Your task to perform on an android device: turn on javascript in the chrome app Image 0: 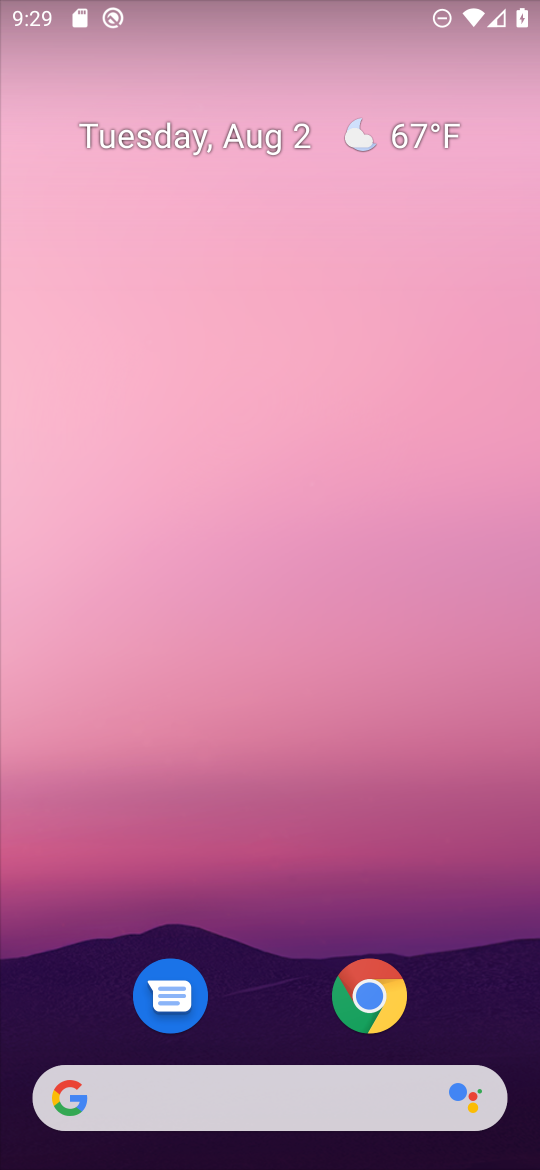
Step 0: drag from (237, 1020) to (234, 0)
Your task to perform on an android device: turn on javascript in the chrome app Image 1: 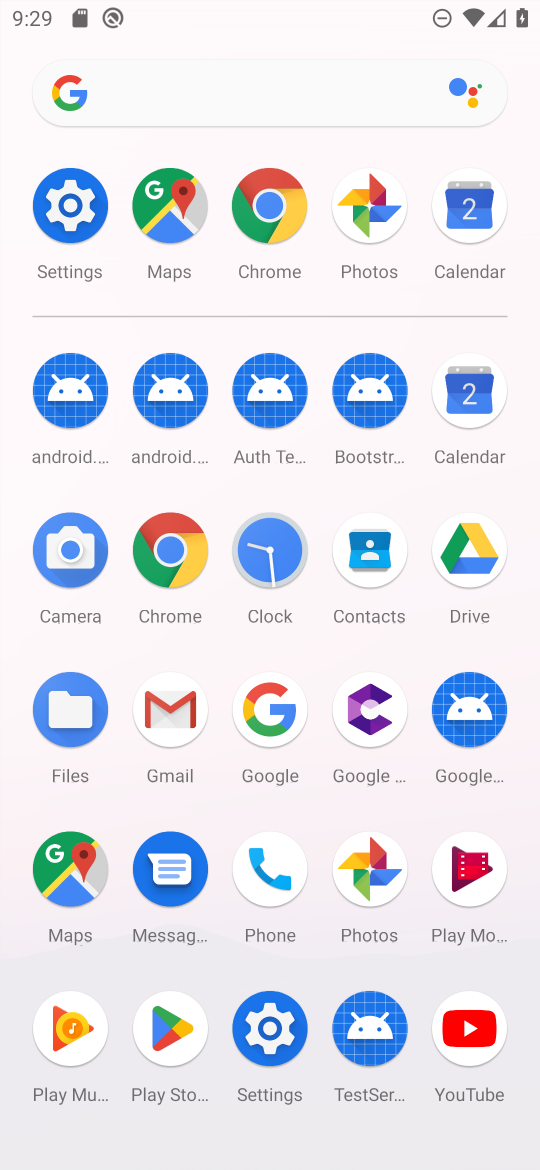
Step 1: click (152, 544)
Your task to perform on an android device: turn on javascript in the chrome app Image 2: 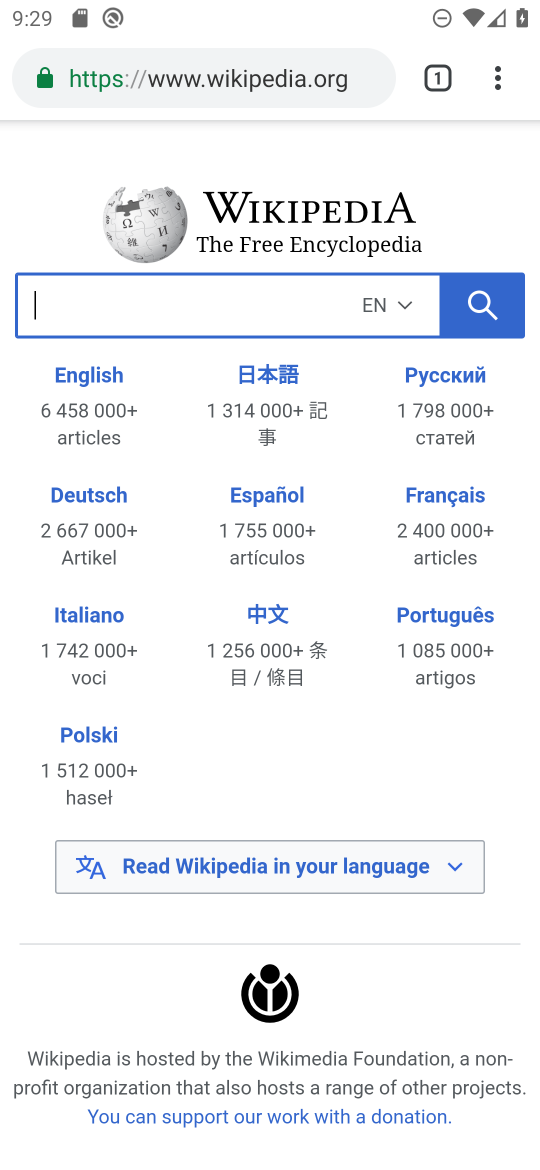
Step 2: drag from (492, 66) to (208, 1032)
Your task to perform on an android device: turn on javascript in the chrome app Image 3: 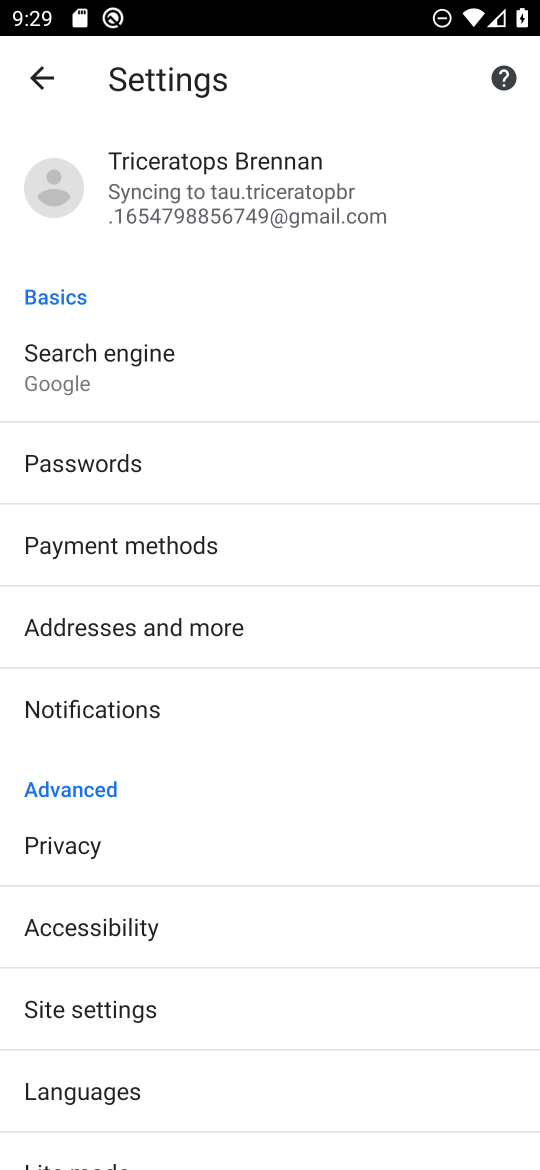
Step 3: click (114, 1019)
Your task to perform on an android device: turn on javascript in the chrome app Image 4: 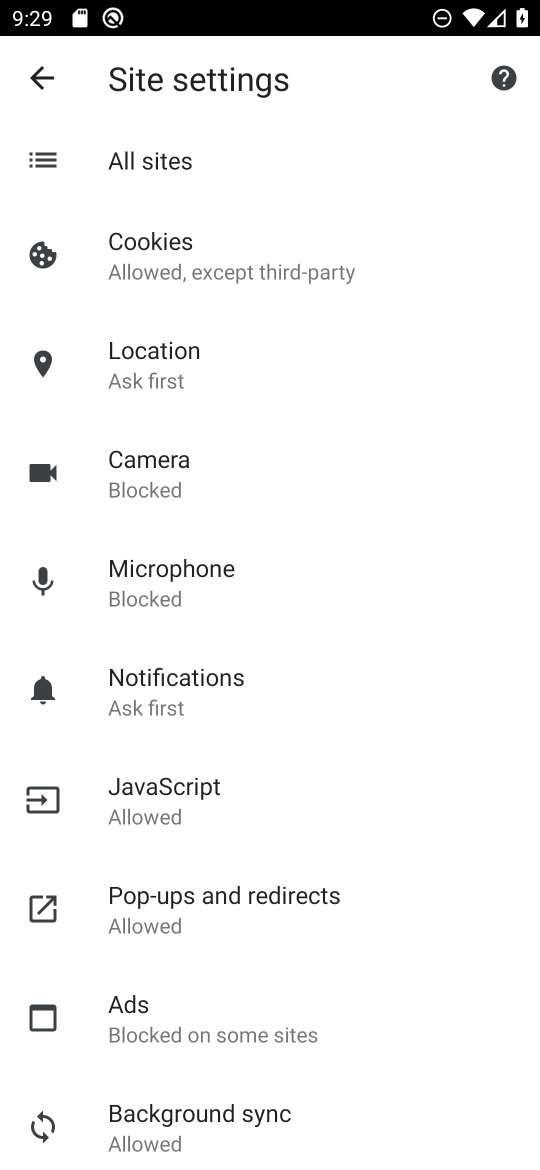
Step 4: click (135, 793)
Your task to perform on an android device: turn on javascript in the chrome app Image 5: 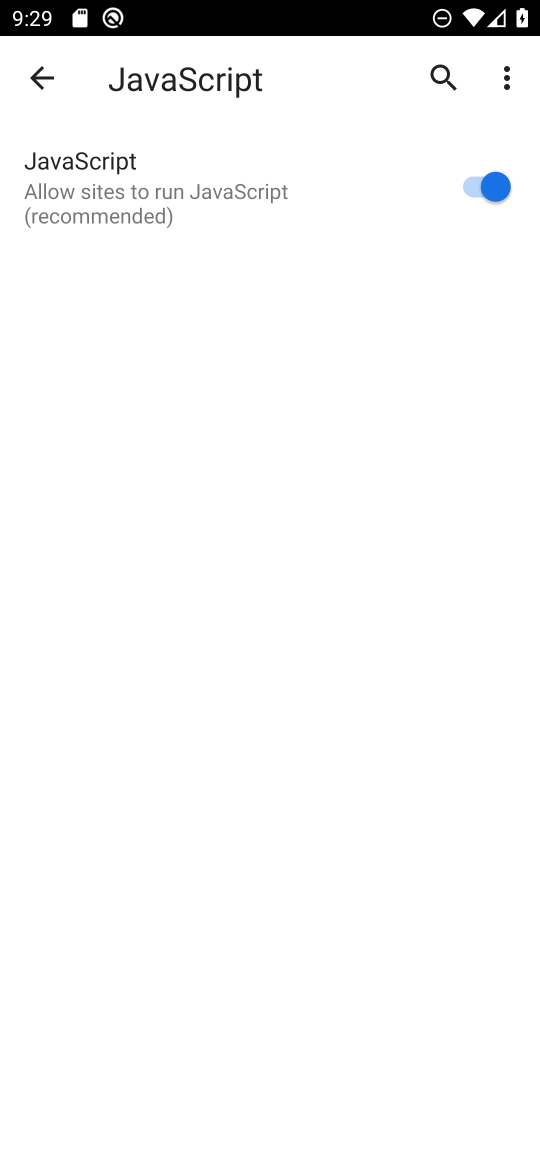
Step 5: task complete